Your task to perform on an android device: Open Yahoo.com Image 0: 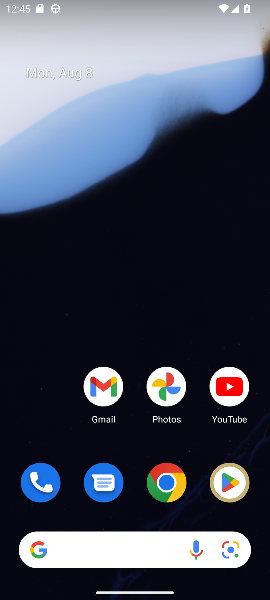
Step 0: click (99, 541)
Your task to perform on an android device: Open Yahoo.com Image 1: 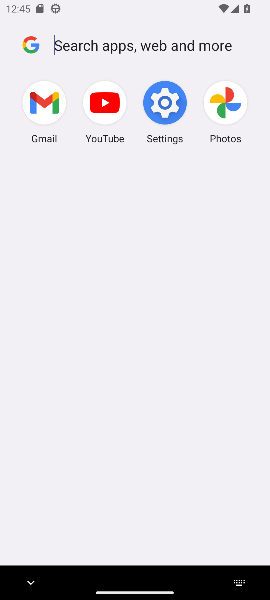
Step 1: press home button
Your task to perform on an android device: Open Yahoo.com Image 2: 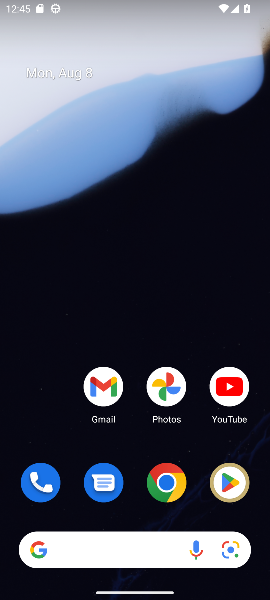
Step 2: drag from (99, 538) to (105, 26)
Your task to perform on an android device: Open Yahoo.com Image 3: 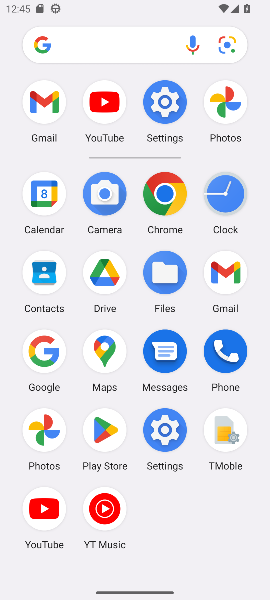
Step 3: click (160, 197)
Your task to perform on an android device: Open Yahoo.com Image 4: 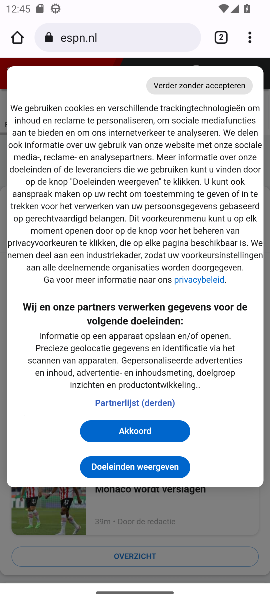
Step 4: click (250, 37)
Your task to perform on an android device: Open Yahoo.com Image 5: 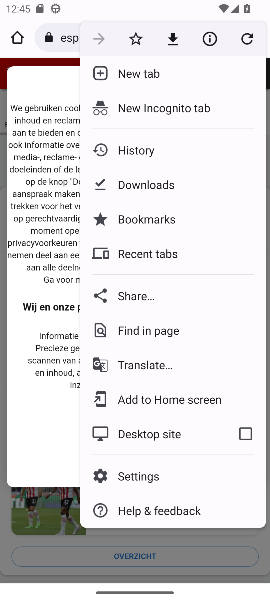
Step 5: click (159, 73)
Your task to perform on an android device: Open Yahoo.com Image 6: 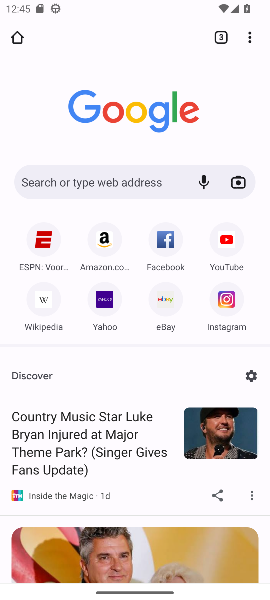
Step 6: click (113, 307)
Your task to perform on an android device: Open Yahoo.com Image 7: 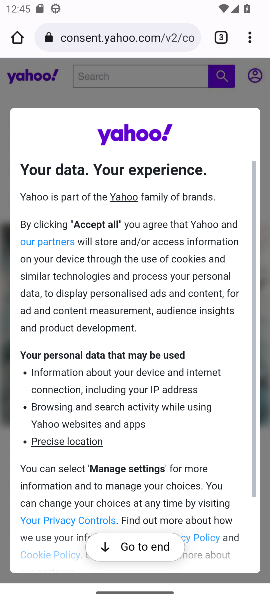
Step 7: task complete